Your task to perform on an android device: open app "Google Play services" Image 0: 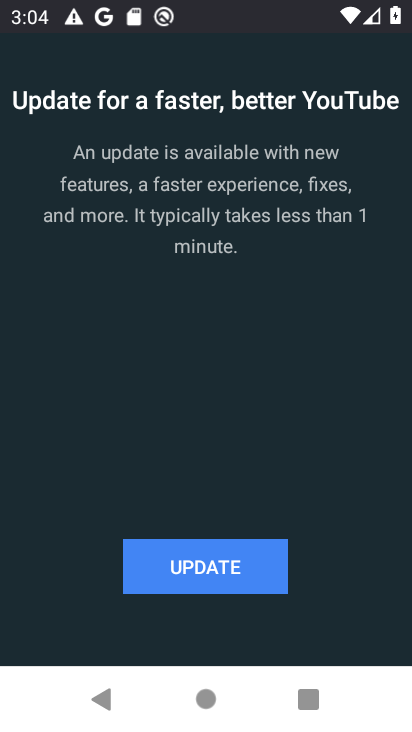
Step 0: press home button
Your task to perform on an android device: open app "Google Play services" Image 1: 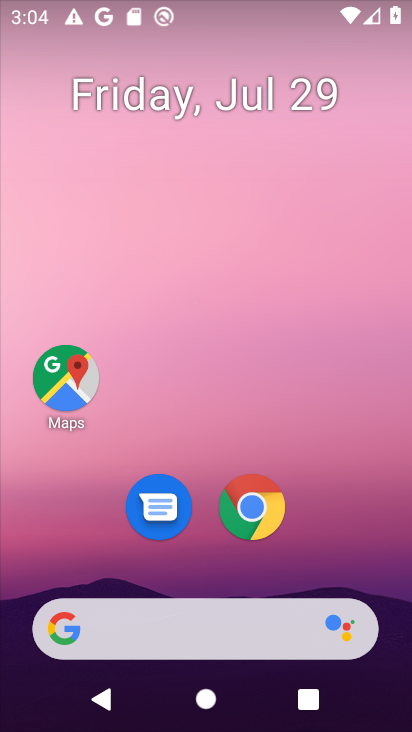
Step 1: click (211, 620)
Your task to perform on an android device: open app "Google Play services" Image 2: 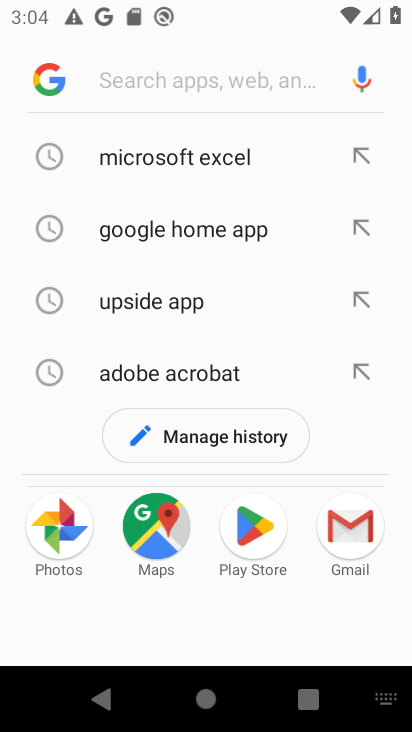
Step 2: type "google play servies"
Your task to perform on an android device: open app "Google Play services" Image 3: 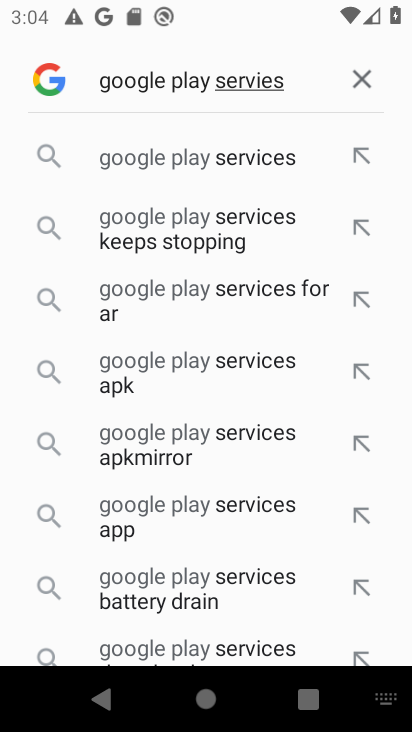
Step 3: click (148, 133)
Your task to perform on an android device: open app "Google Play services" Image 4: 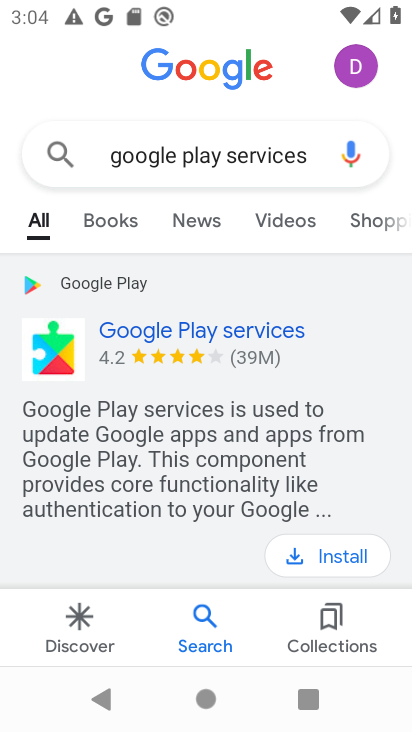
Step 4: task complete